Your task to perform on an android device: move an email to a new category in the gmail app Image 0: 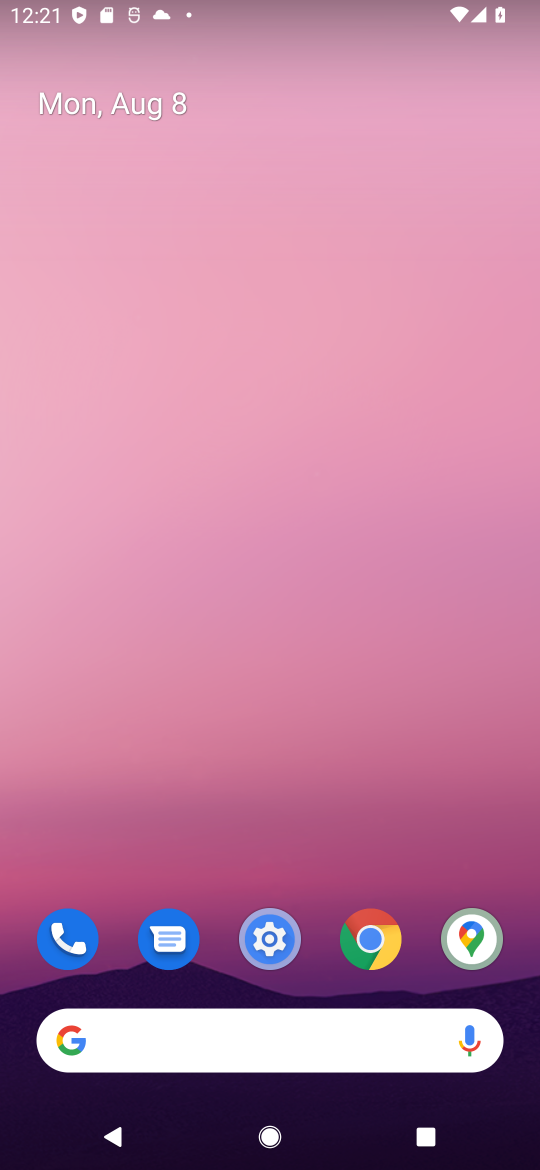
Step 0: drag from (151, 1033) to (478, 378)
Your task to perform on an android device: move an email to a new category in the gmail app Image 1: 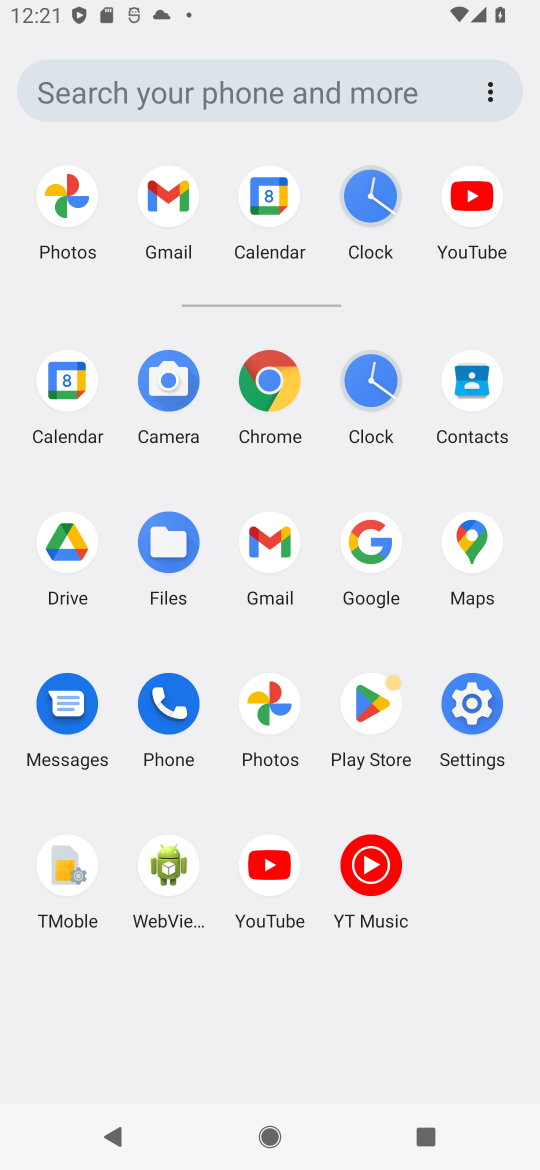
Step 1: click (263, 534)
Your task to perform on an android device: move an email to a new category in the gmail app Image 2: 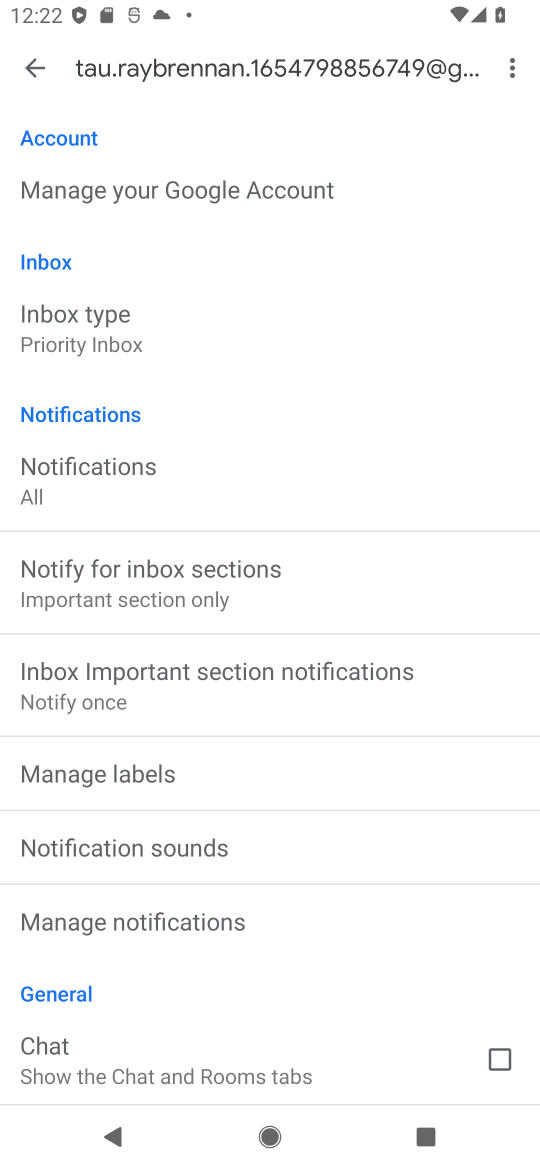
Step 2: press back button
Your task to perform on an android device: move an email to a new category in the gmail app Image 3: 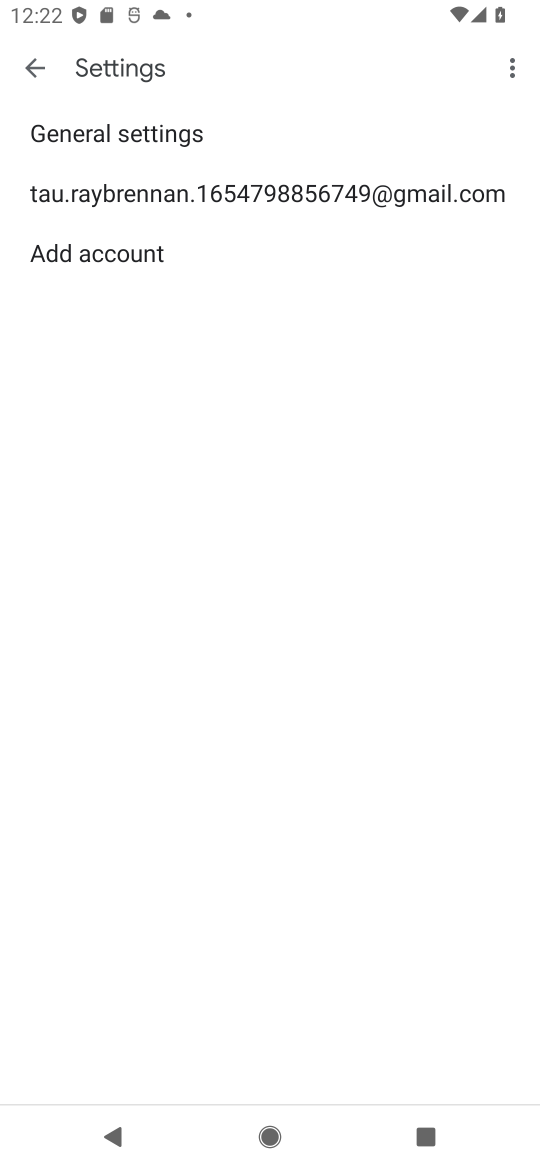
Step 3: press back button
Your task to perform on an android device: move an email to a new category in the gmail app Image 4: 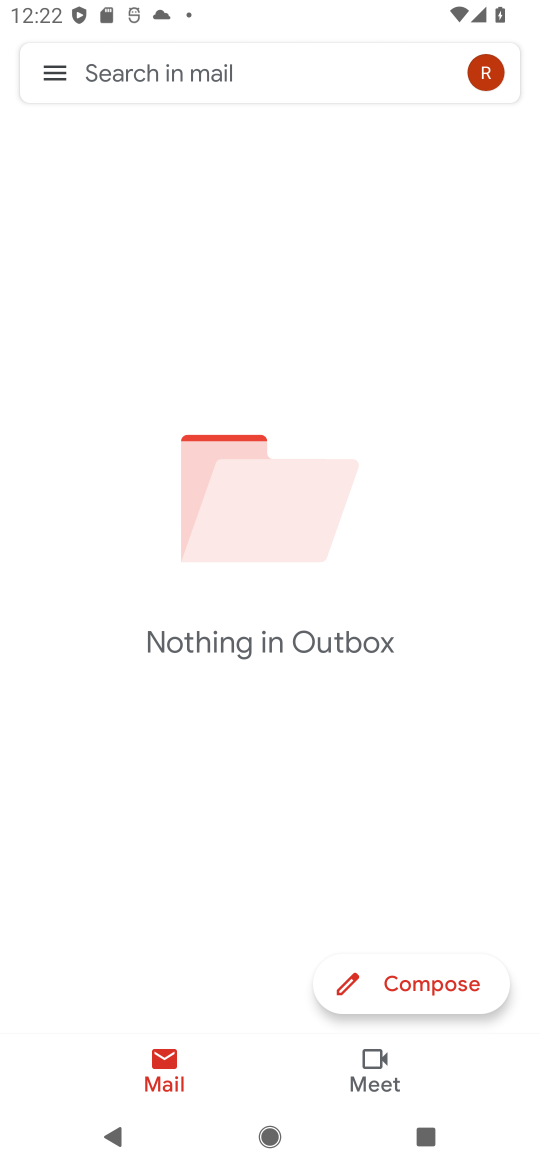
Step 4: click (35, 72)
Your task to perform on an android device: move an email to a new category in the gmail app Image 5: 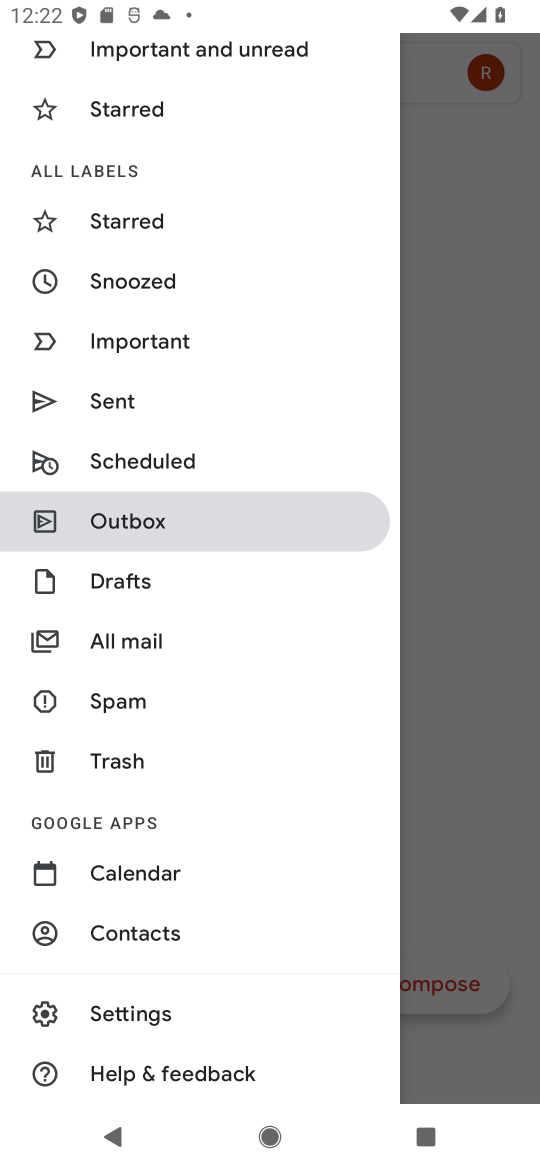
Step 5: click (180, 52)
Your task to perform on an android device: move an email to a new category in the gmail app Image 6: 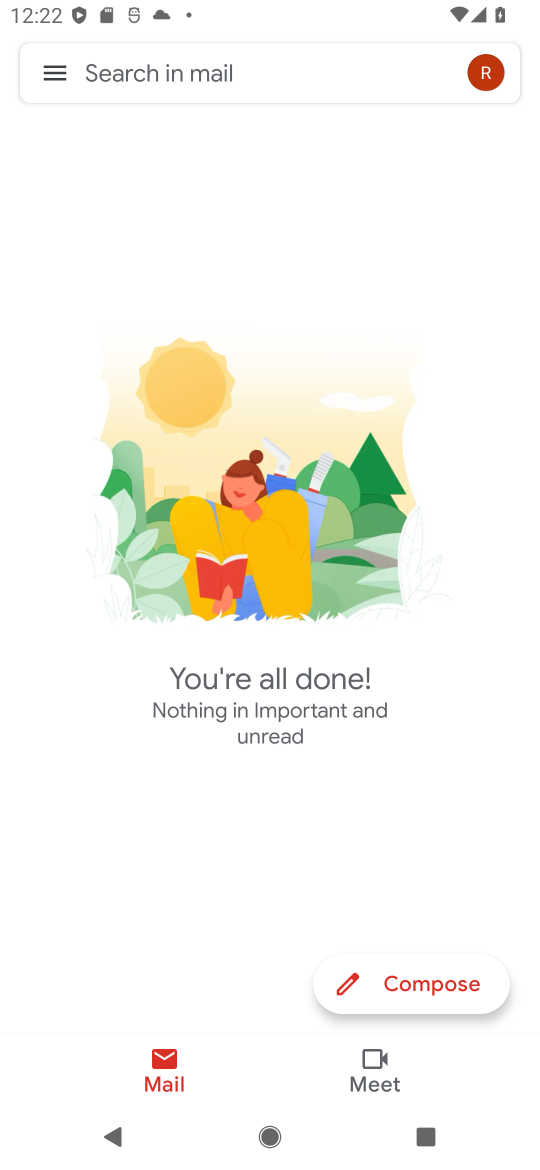
Step 6: click (69, 87)
Your task to perform on an android device: move an email to a new category in the gmail app Image 7: 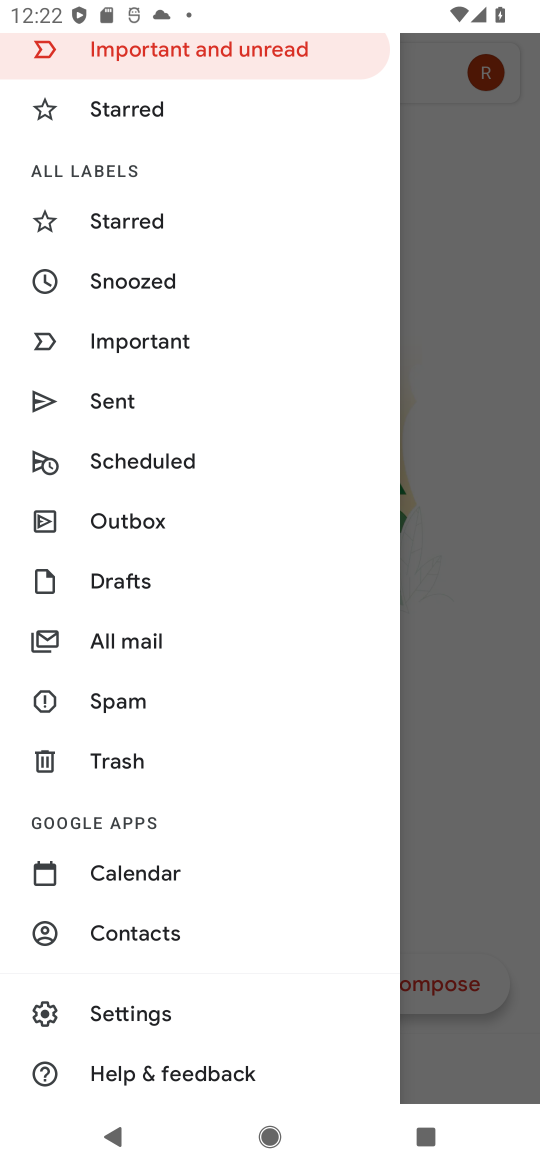
Step 7: click (107, 118)
Your task to perform on an android device: move an email to a new category in the gmail app Image 8: 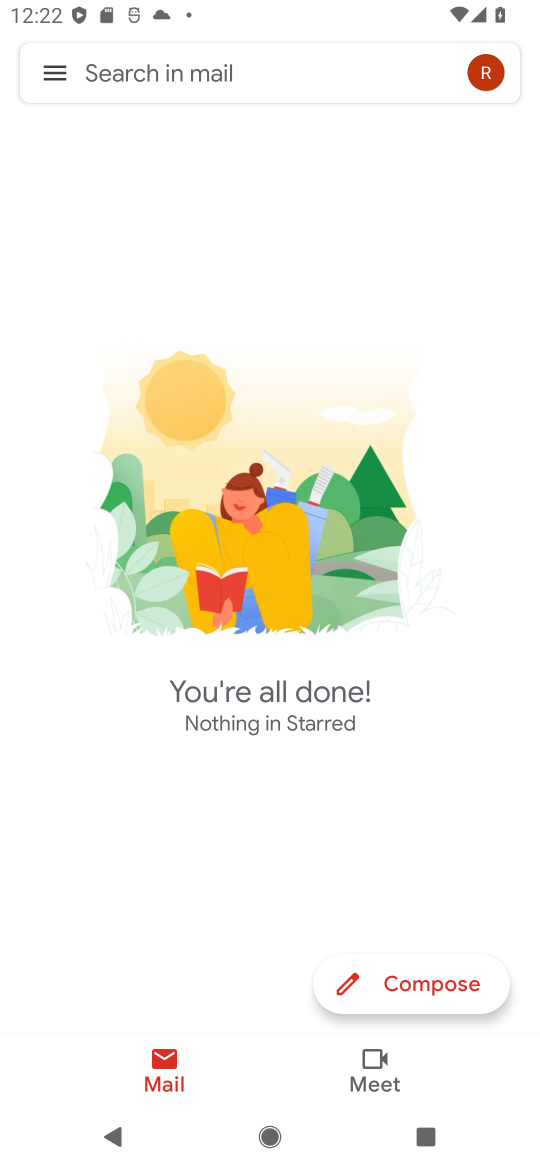
Step 8: click (45, 71)
Your task to perform on an android device: move an email to a new category in the gmail app Image 9: 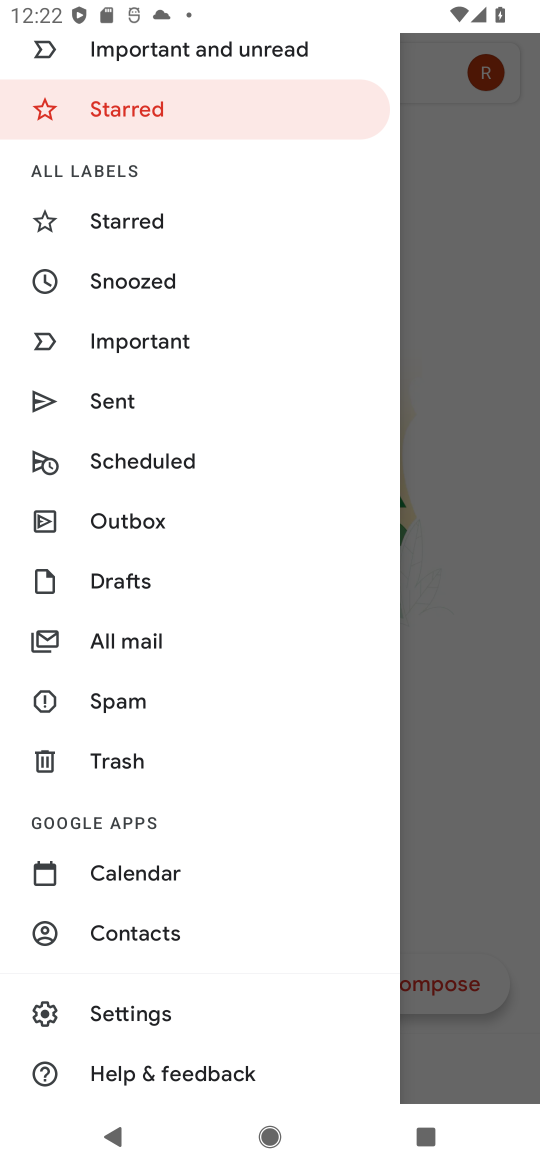
Step 9: click (151, 274)
Your task to perform on an android device: move an email to a new category in the gmail app Image 10: 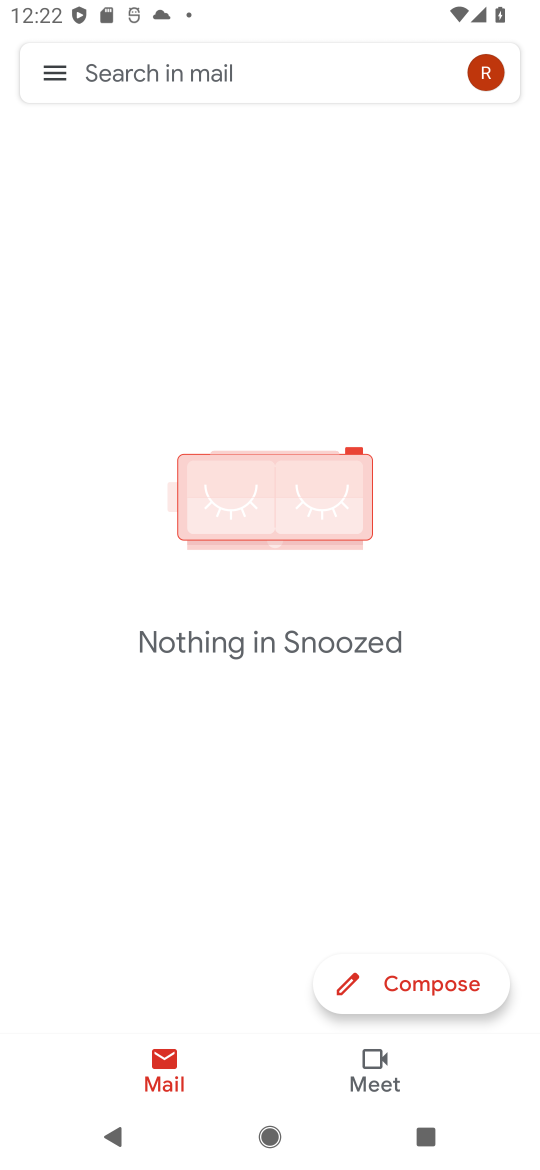
Step 10: click (49, 71)
Your task to perform on an android device: move an email to a new category in the gmail app Image 11: 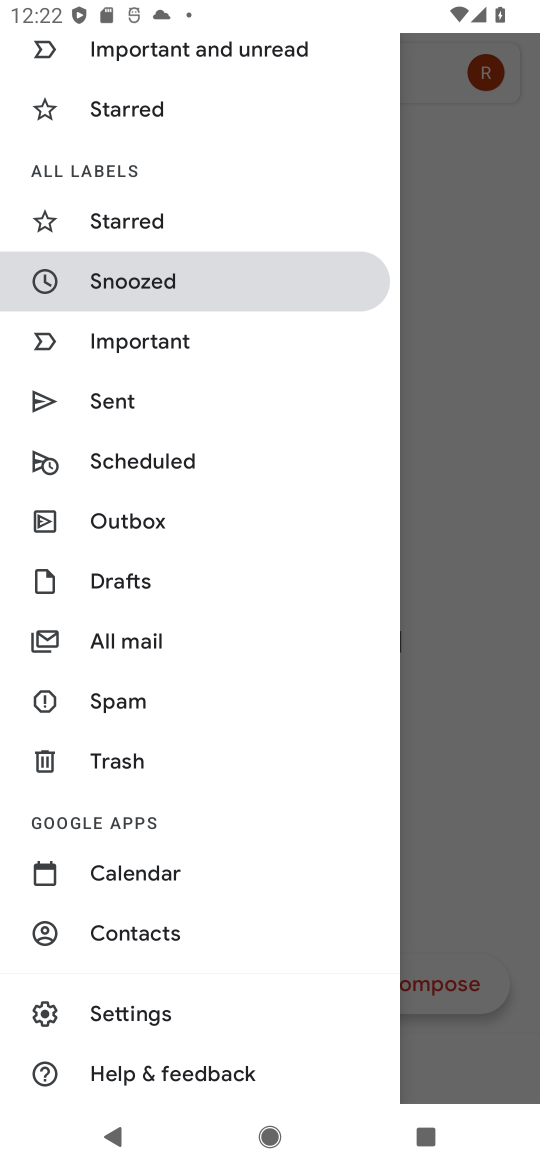
Step 11: click (130, 390)
Your task to perform on an android device: move an email to a new category in the gmail app Image 12: 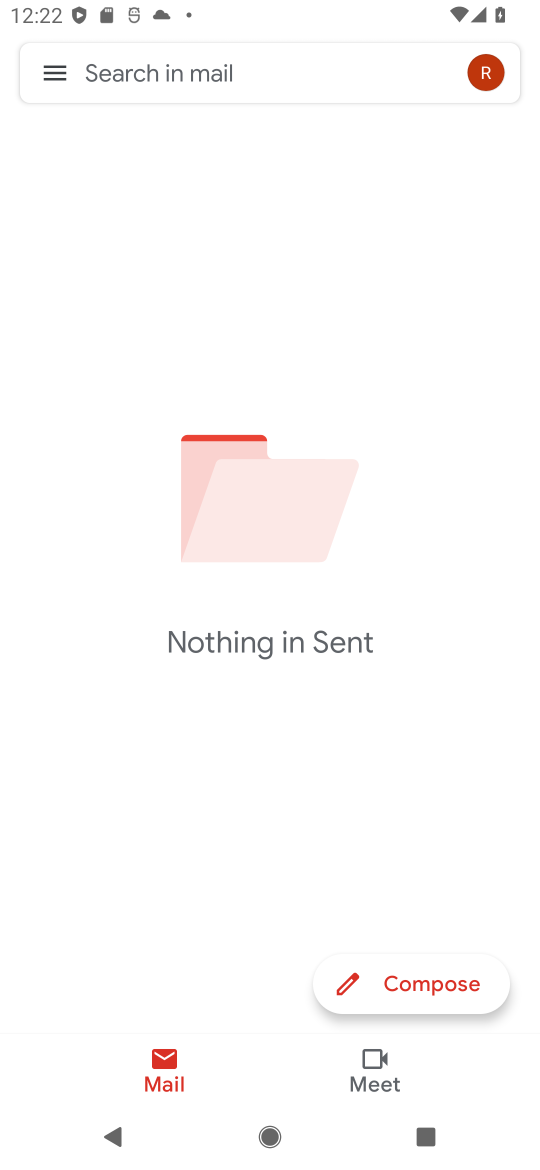
Step 12: click (51, 70)
Your task to perform on an android device: move an email to a new category in the gmail app Image 13: 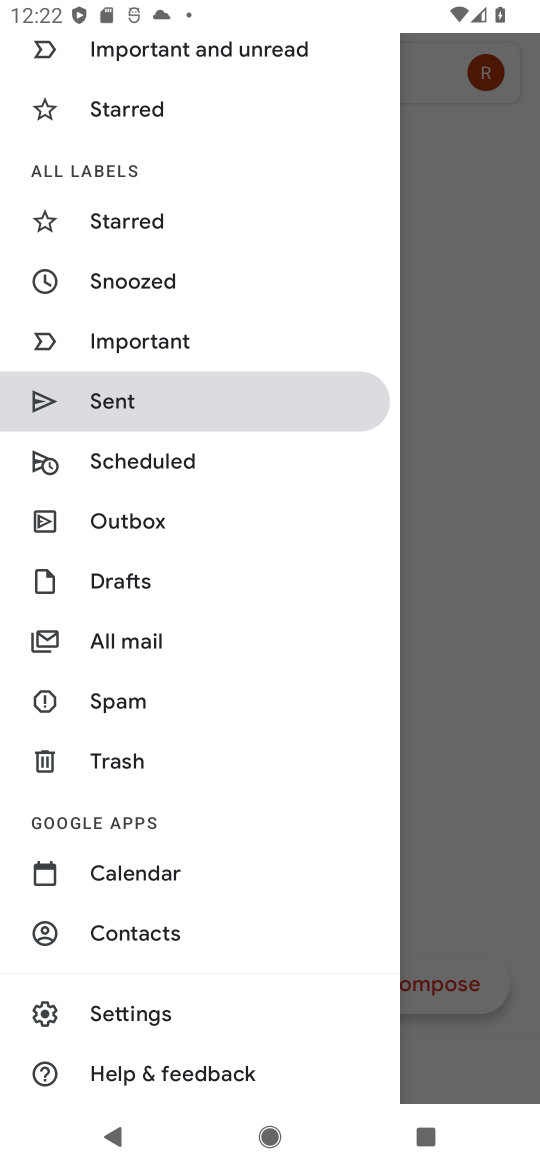
Step 13: click (121, 465)
Your task to perform on an android device: move an email to a new category in the gmail app Image 14: 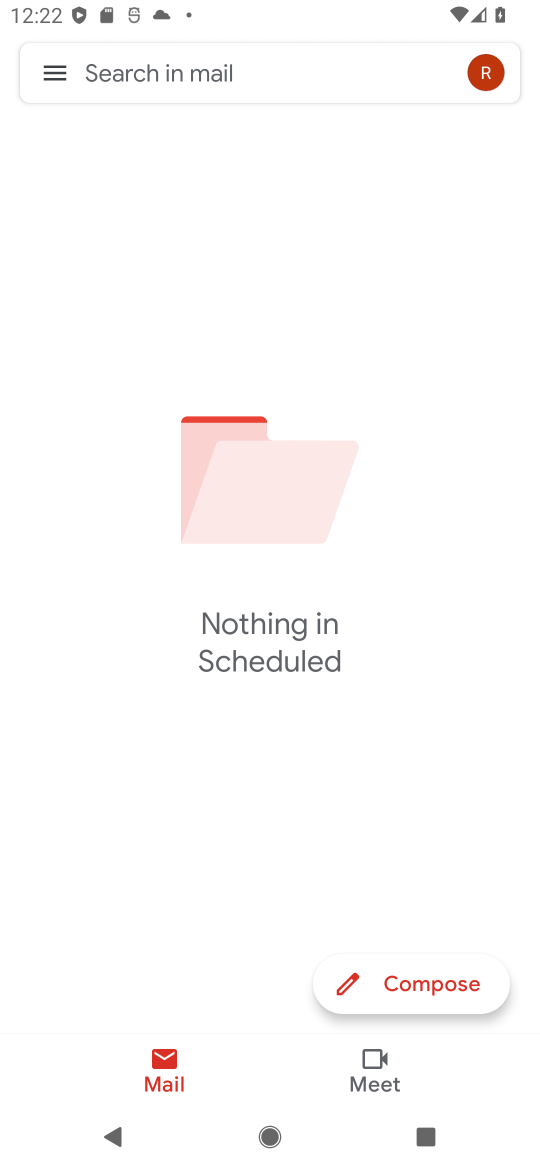
Step 14: task complete